Your task to perform on an android device: change text size in settings app Image 0: 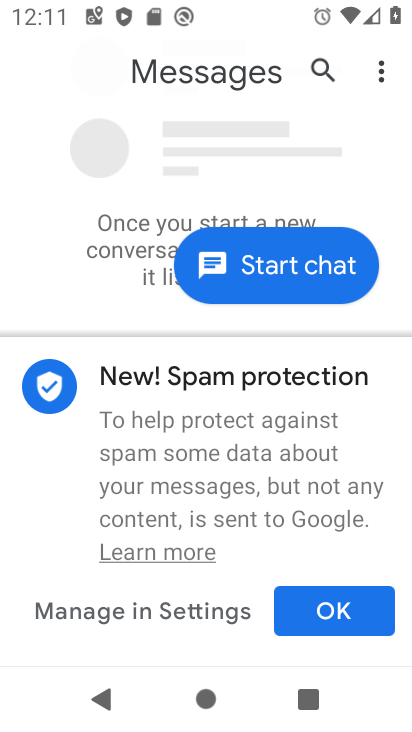
Step 0: press back button
Your task to perform on an android device: change text size in settings app Image 1: 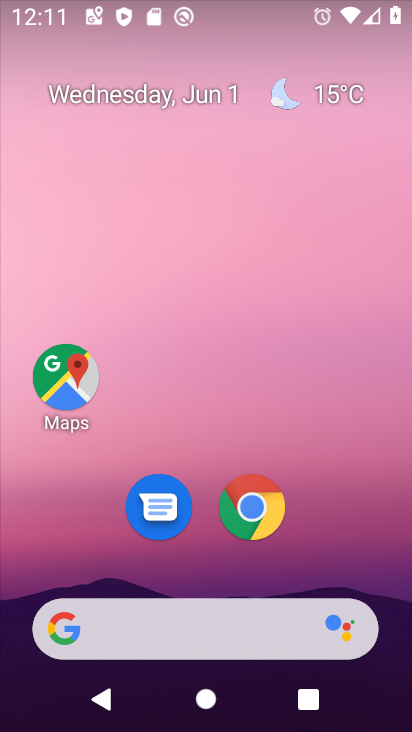
Step 1: drag from (329, 551) to (240, 13)
Your task to perform on an android device: change text size in settings app Image 2: 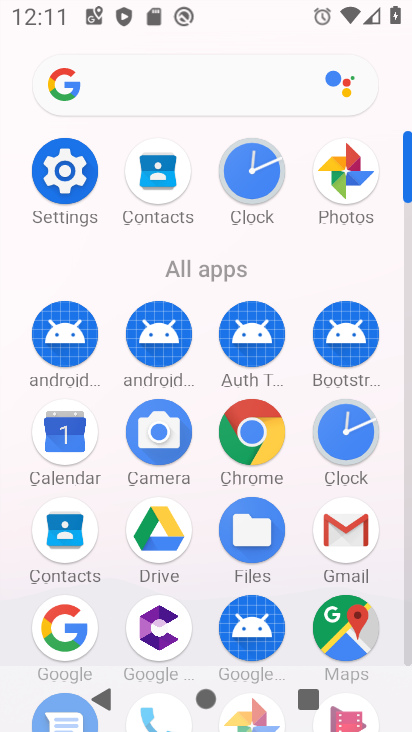
Step 2: click (61, 170)
Your task to perform on an android device: change text size in settings app Image 3: 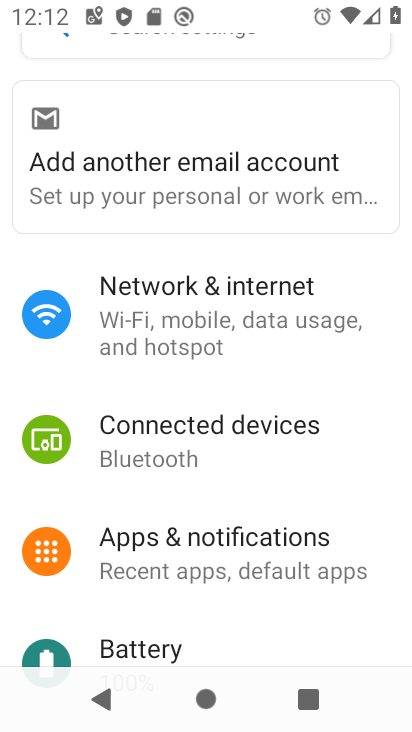
Step 3: drag from (179, 484) to (175, 367)
Your task to perform on an android device: change text size in settings app Image 4: 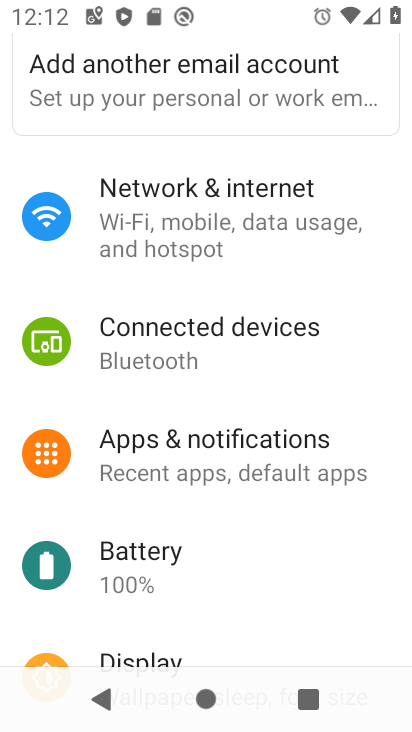
Step 4: drag from (170, 522) to (176, 371)
Your task to perform on an android device: change text size in settings app Image 5: 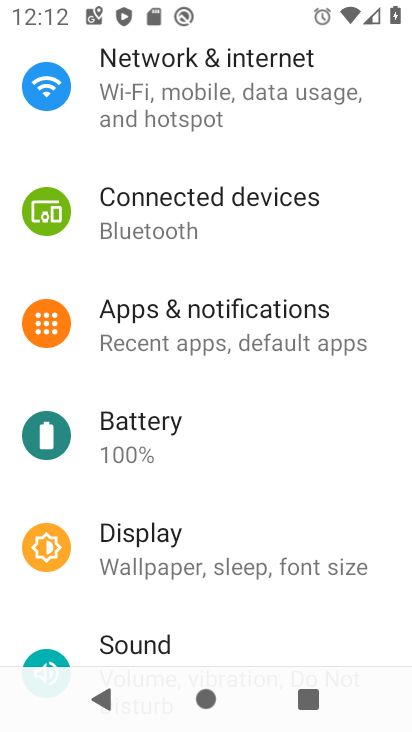
Step 5: drag from (147, 485) to (151, 351)
Your task to perform on an android device: change text size in settings app Image 6: 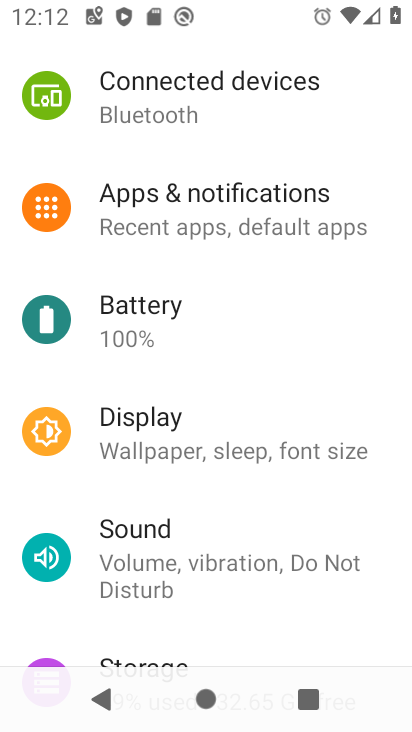
Step 6: drag from (128, 496) to (151, 345)
Your task to perform on an android device: change text size in settings app Image 7: 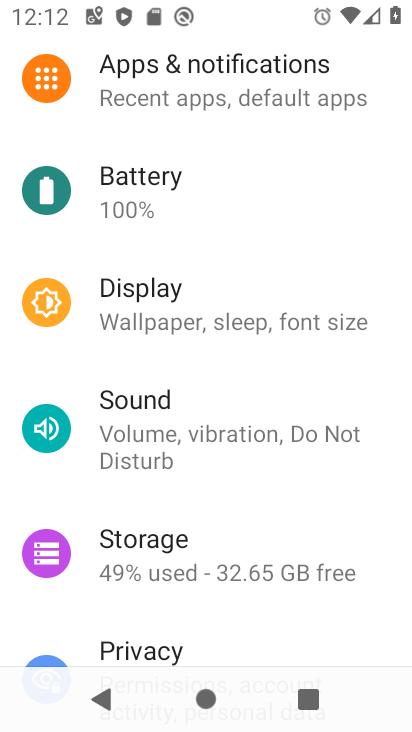
Step 7: drag from (128, 502) to (149, 355)
Your task to perform on an android device: change text size in settings app Image 8: 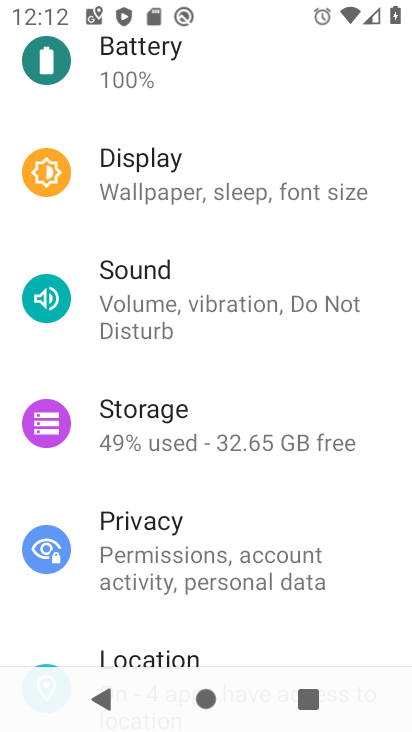
Step 8: drag from (120, 477) to (154, 301)
Your task to perform on an android device: change text size in settings app Image 9: 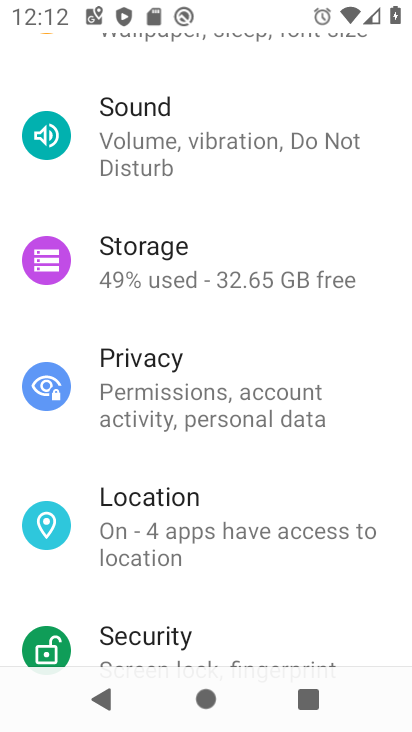
Step 9: drag from (122, 463) to (145, 310)
Your task to perform on an android device: change text size in settings app Image 10: 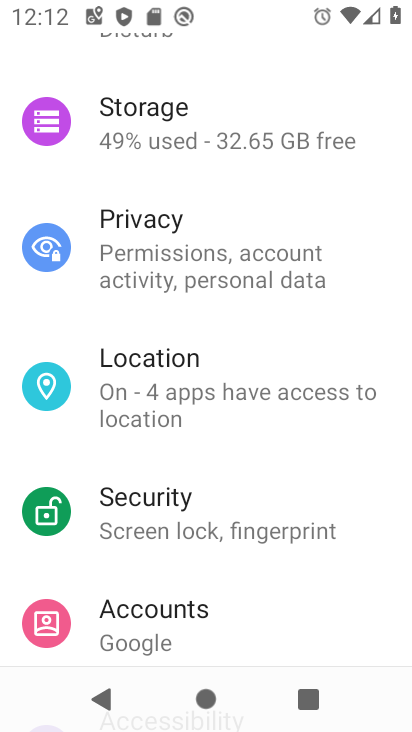
Step 10: drag from (121, 456) to (136, 296)
Your task to perform on an android device: change text size in settings app Image 11: 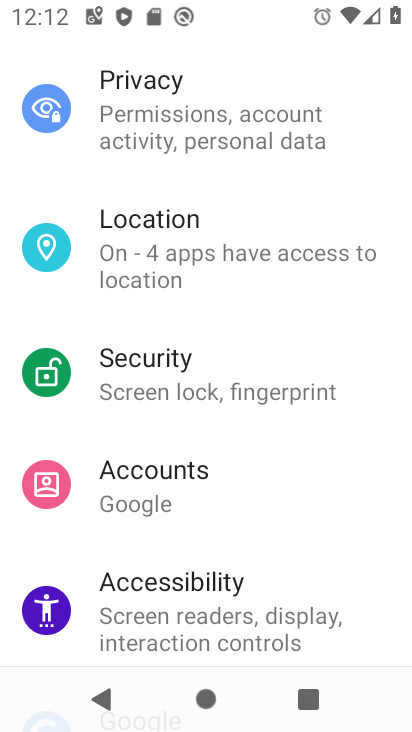
Step 11: drag from (114, 432) to (128, 289)
Your task to perform on an android device: change text size in settings app Image 12: 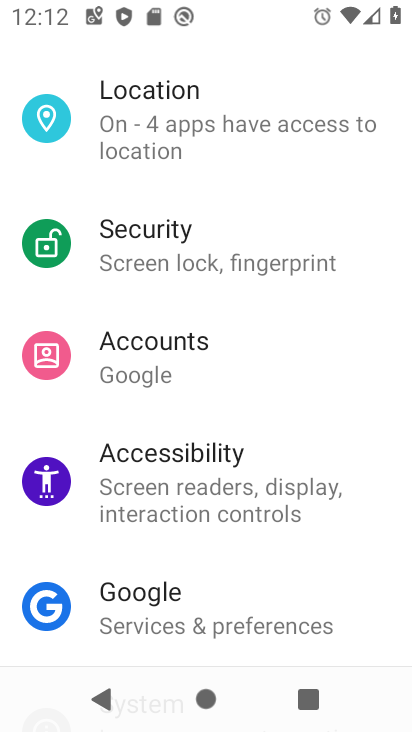
Step 12: click (164, 451)
Your task to perform on an android device: change text size in settings app Image 13: 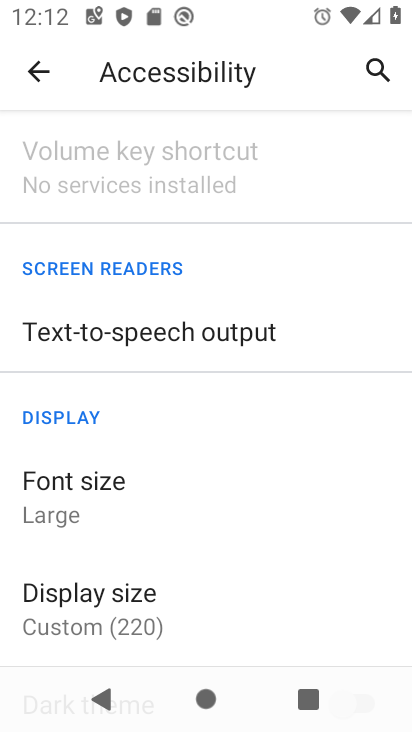
Step 13: click (121, 475)
Your task to perform on an android device: change text size in settings app Image 14: 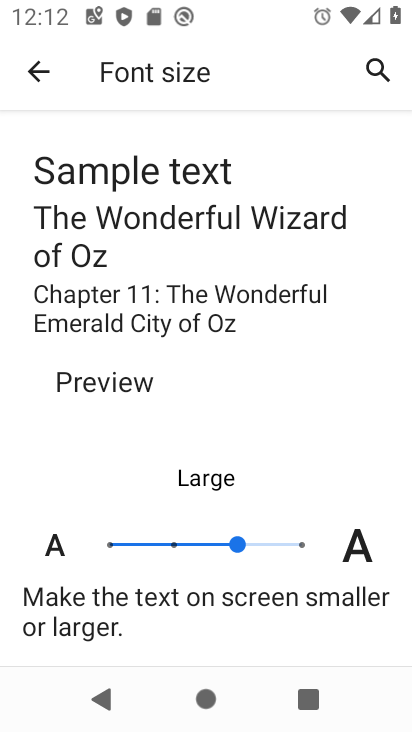
Step 14: click (179, 542)
Your task to perform on an android device: change text size in settings app Image 15: 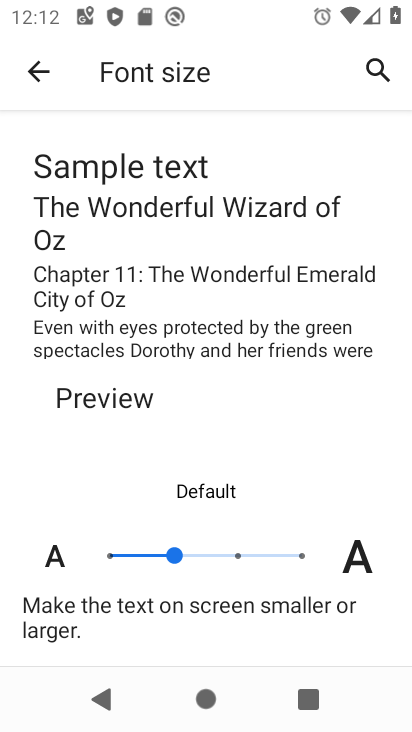
Step 15: task complete